Your task to perform on an android device: Go to internet settings Image 0: 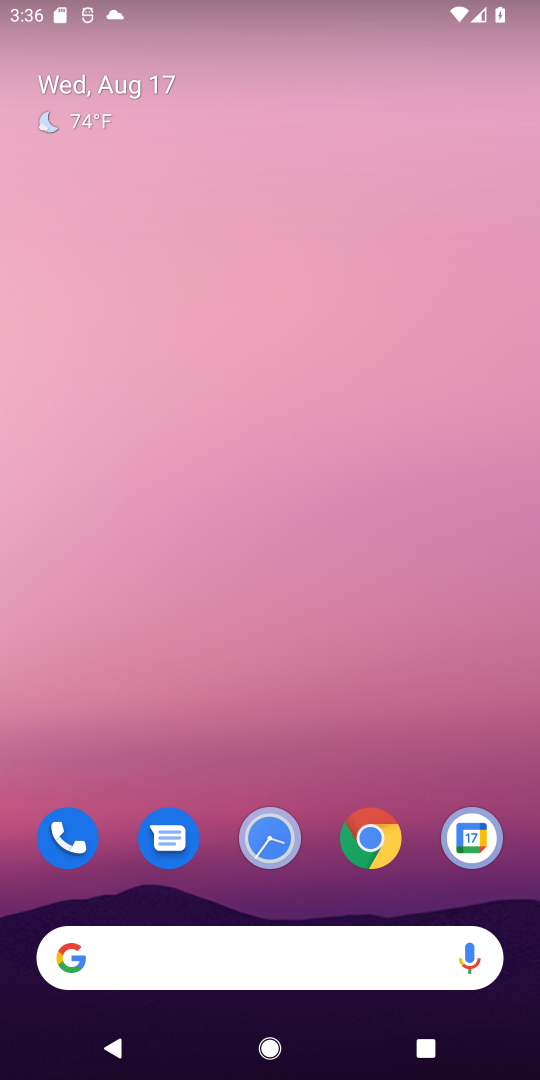
Step 0: drag from (290, 922) to (227, 262)
Your task to perform on an android device: Go to internet settings Image 1: 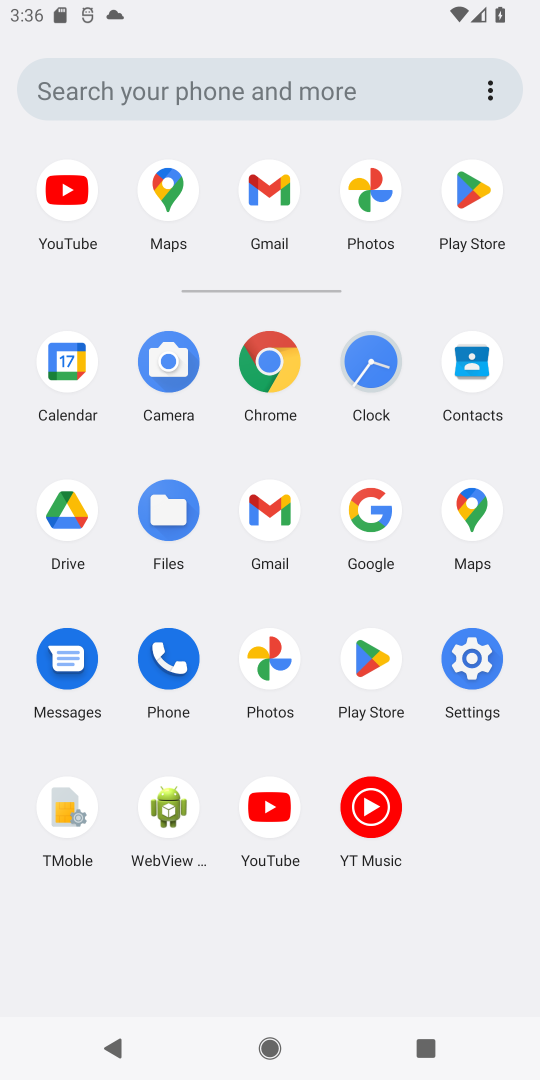
Step 1: click (469, 657)
Your task to perform on an android device: Go to internet settings Image 2: 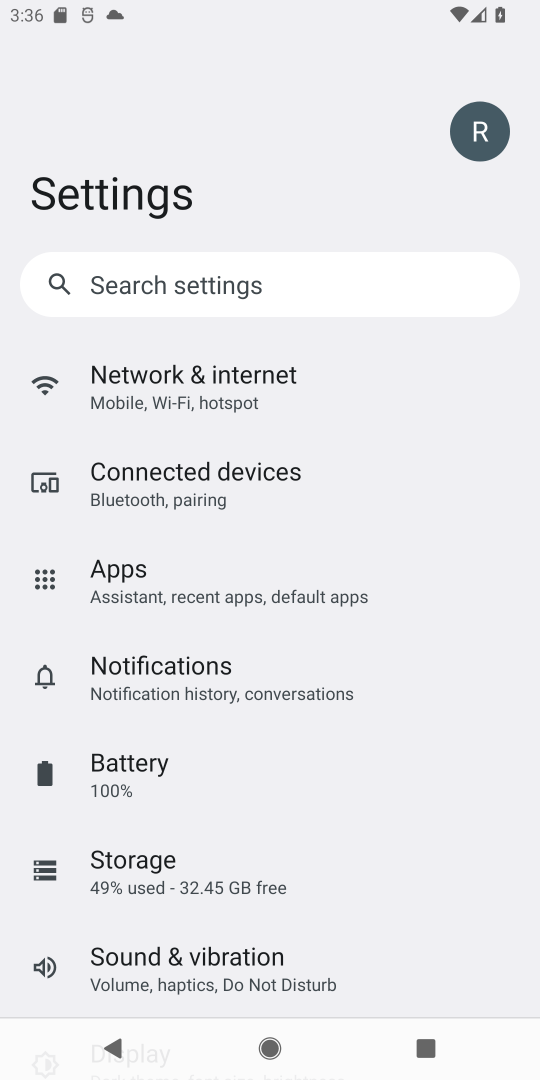
Step 2: click (160, 382)
Your task to perform on an android device: Go to internet settings Image 3: 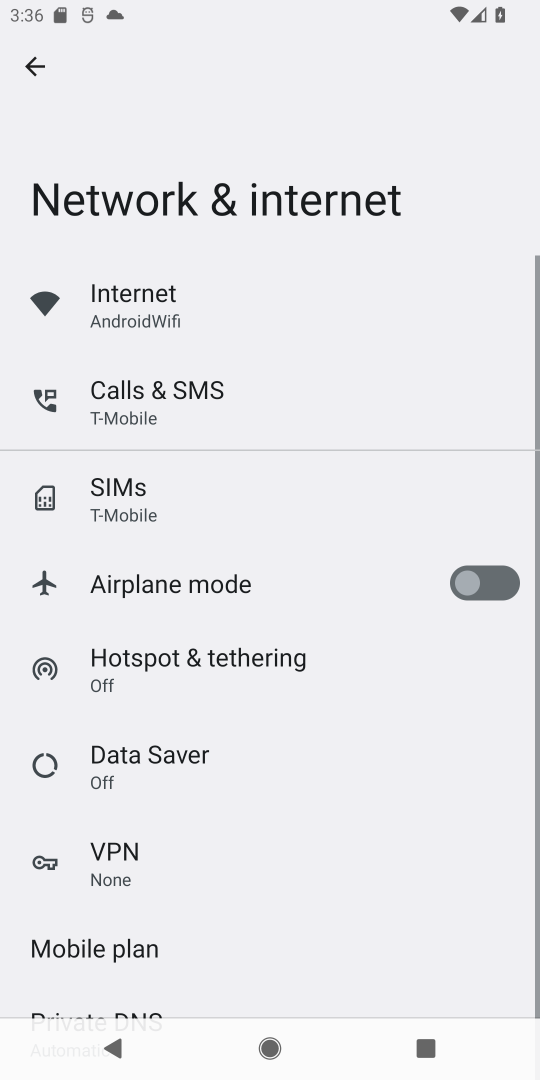
Step 3: click (119, 309)
Your task to perform on an android device: Go to internet settings Image 4: 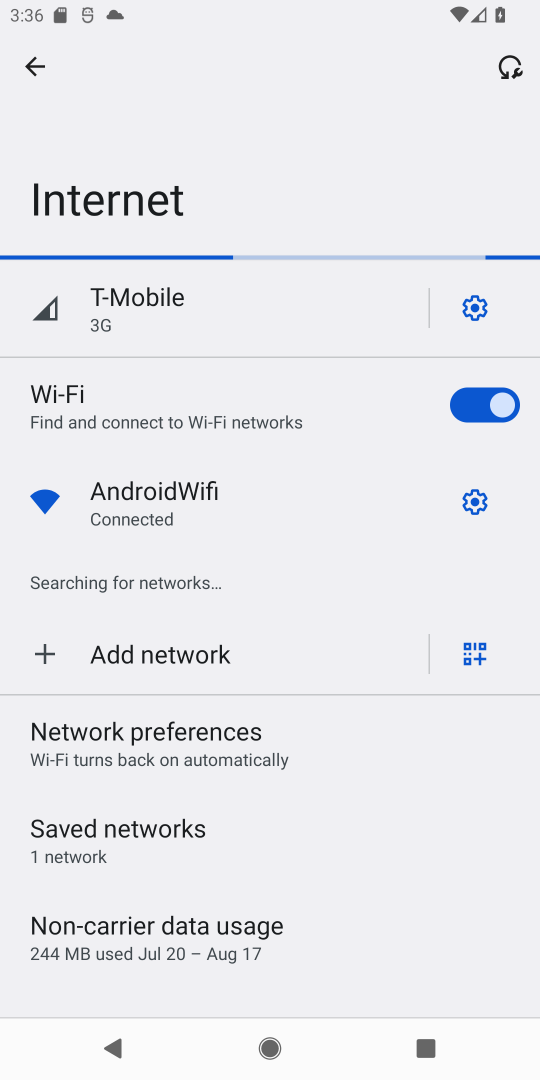
Step 4: click (461, 292)
Your task to perform on an android device: Go to internet settings Image 5: 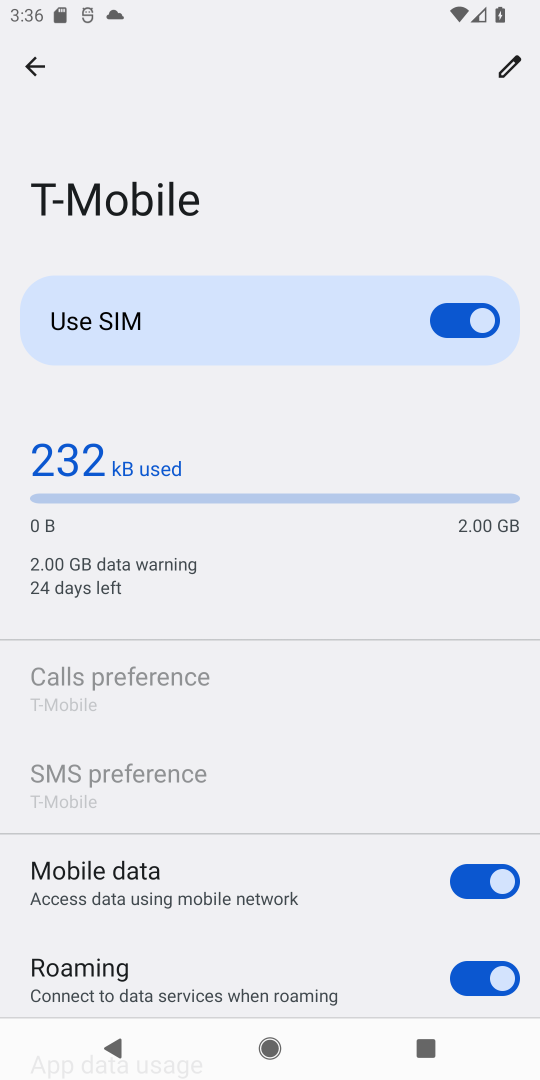
Step 5: task complete